Your task to perform on an android device: Open eBay Image 0: 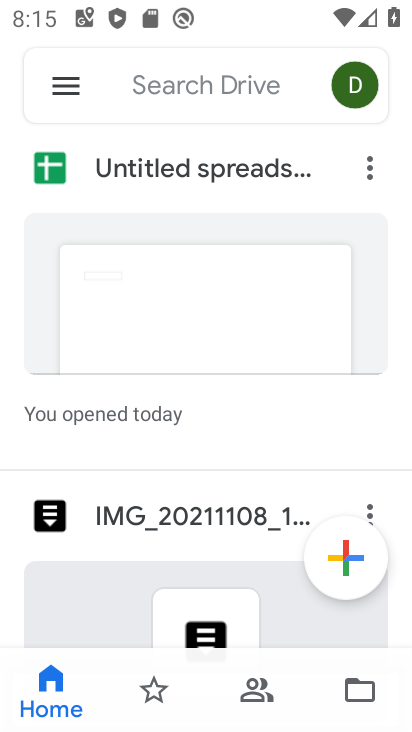
Step 0: press home button
Your task to perform on an android device: Open eBay Image 1: 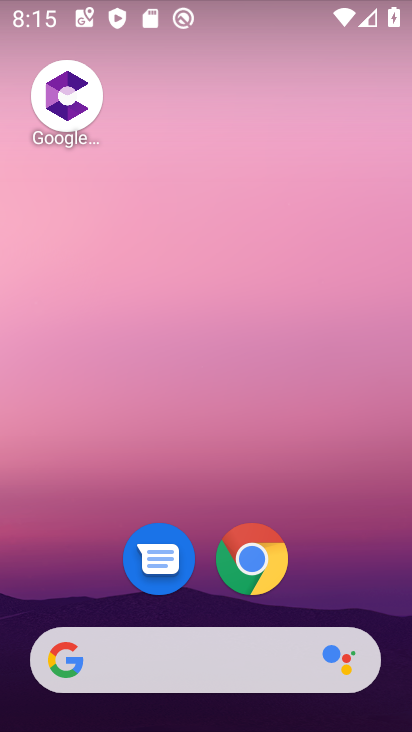
Step 1: drag from (223, 620) to (295, 0)
Your task to perform on an android device: Open eBay Image 2: 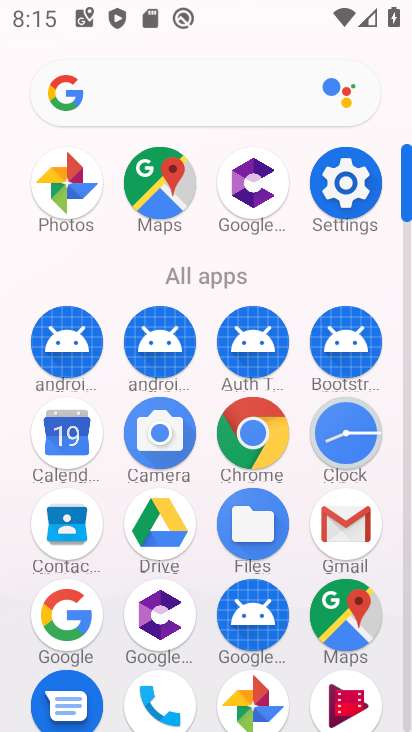
Step 2: click (263, 428)
Your task to perform on an android device: Open eBay Image 3: 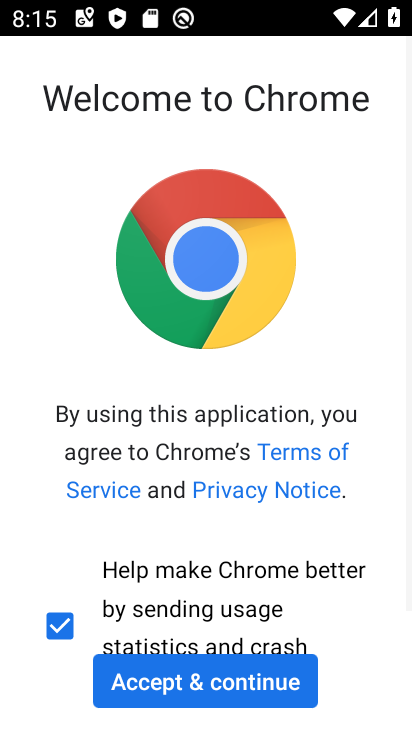
Step 3: click (245, 703)
Your task to perform on an android device: Open eBay Image 4: 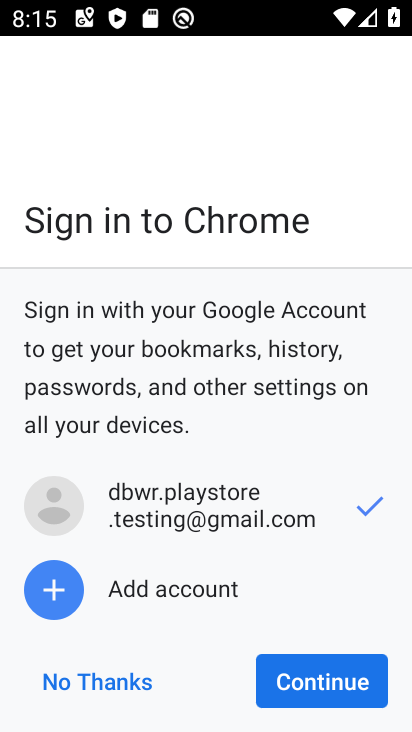
Step 4: click (344, 670)
Your task to perform on an android device: Open eBay Image 5: 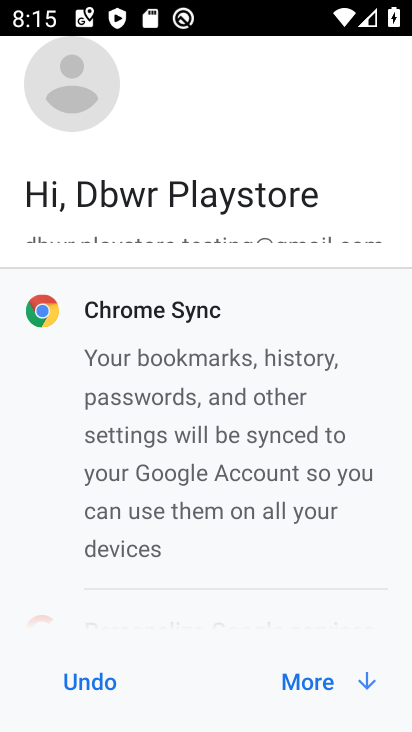
Step 5: click (340, 660)
Your task to perform on an android device: Open eBay Image 6: 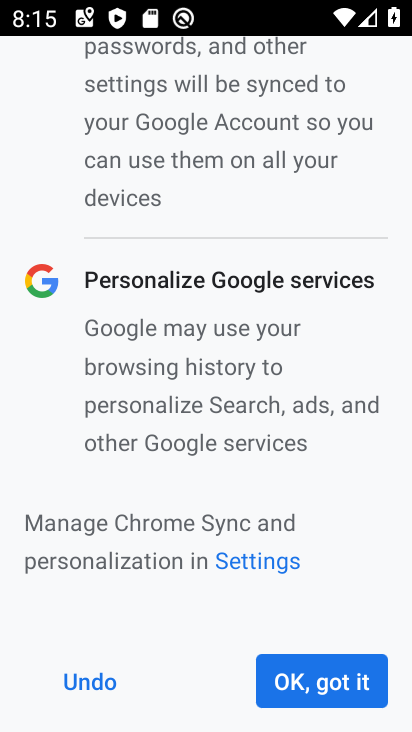
Step 6: click (354, 685)
Your task to perform on an android device: Open eBay Image 7: 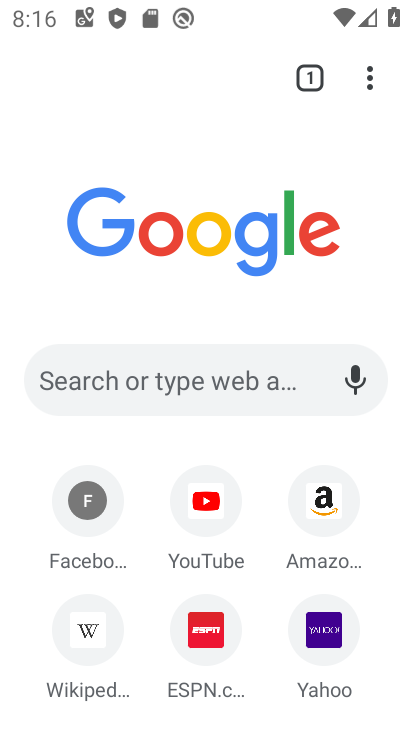
Step 7: click (190, 382)
Your task to perform on an android device: Open eBay Image 8: 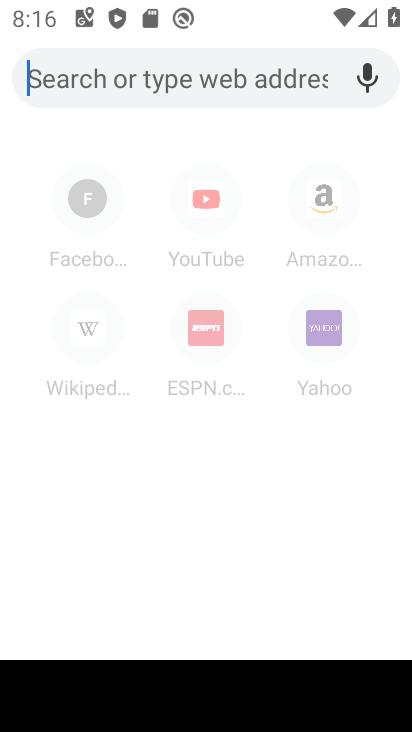
Step 8: type "ebay"
Your task to perform on an android device: Open eBay Image 9: 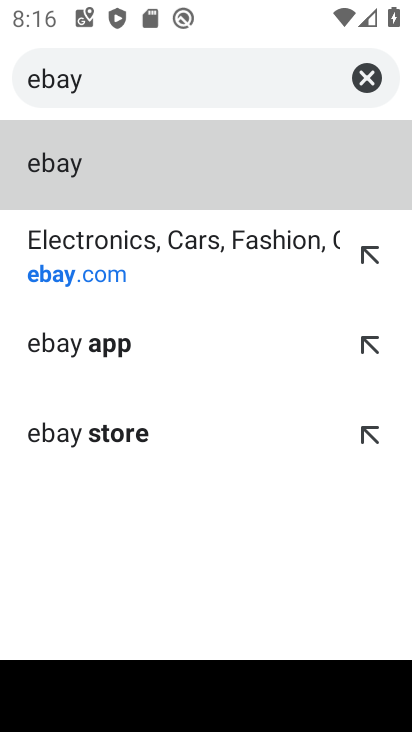
Step 9: click (162, 286)
Your task to perform on an android device: Open eBay Image 10: 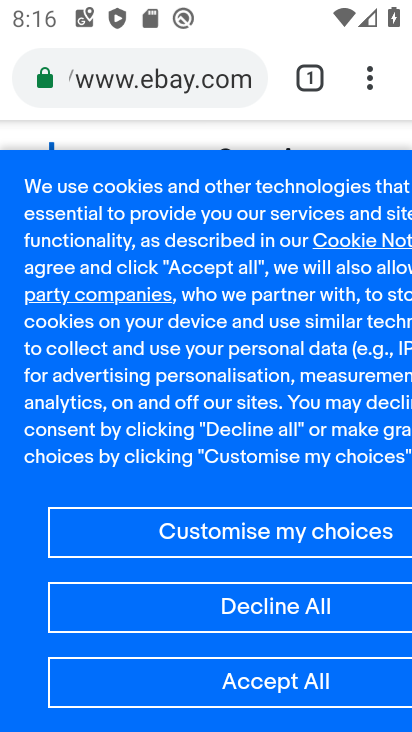
Step 10: click (251, 681)
Your task to perform on an android device: Open eBay Image 11: 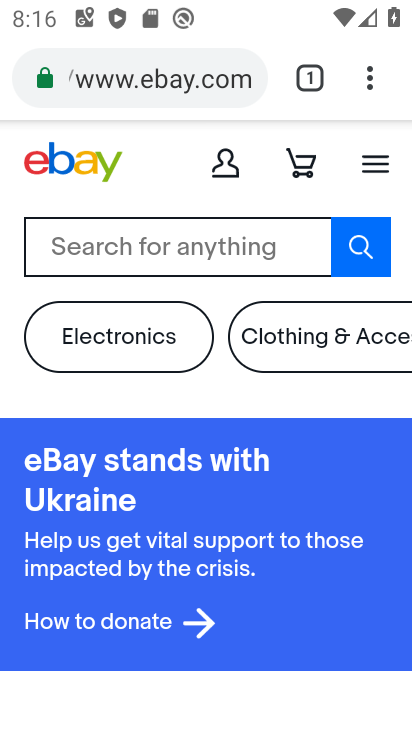
Step 11: task complete